Your task to perform on an android device: change the clock display to analog Image 0: 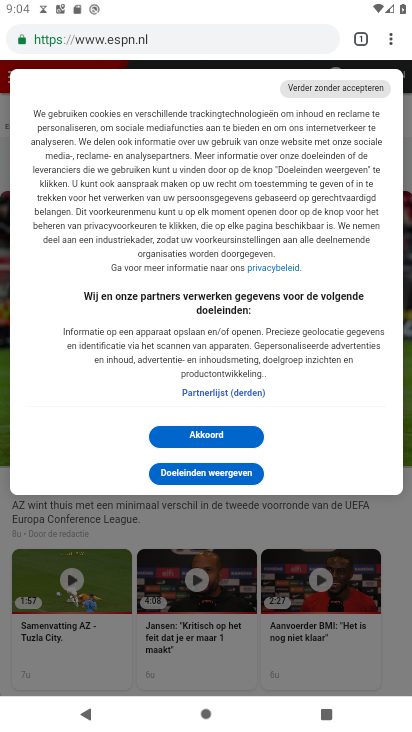
Step 0: press home button
Your task to perform on an android device: change the clock display to analog Image 1: 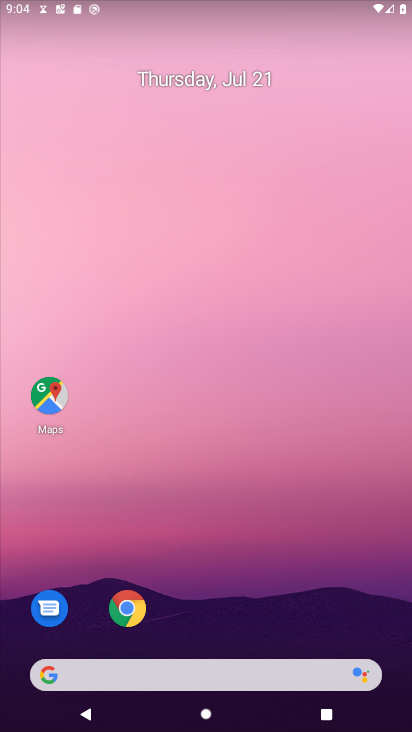
Step 1: drag from (186, 459) to (137, 61)
Your task to perform on an android device: change the clock display to analog Image 2: 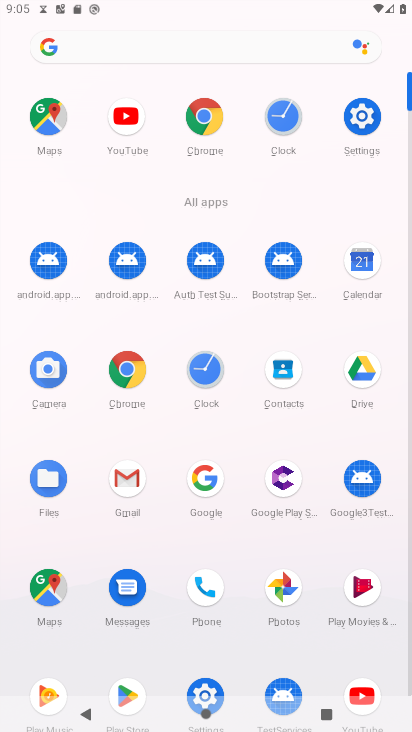
Step 2: click (204, 369)
Your task to perform on an android device: change the clock display to analog Image 3: 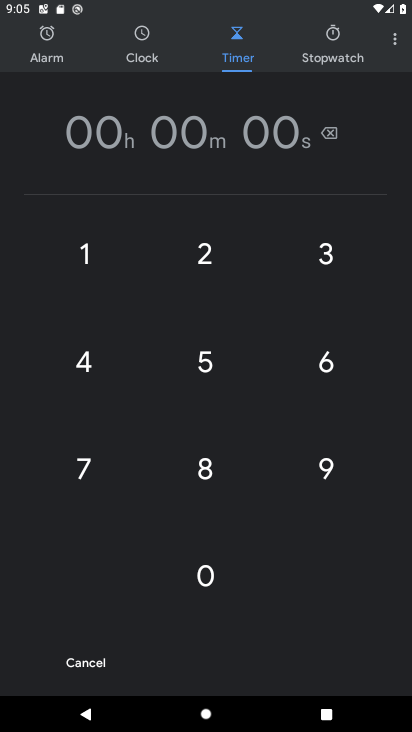
Step 3: click (396, 42)
Your task to perform on an android device: change the clock display to analog Image 4: 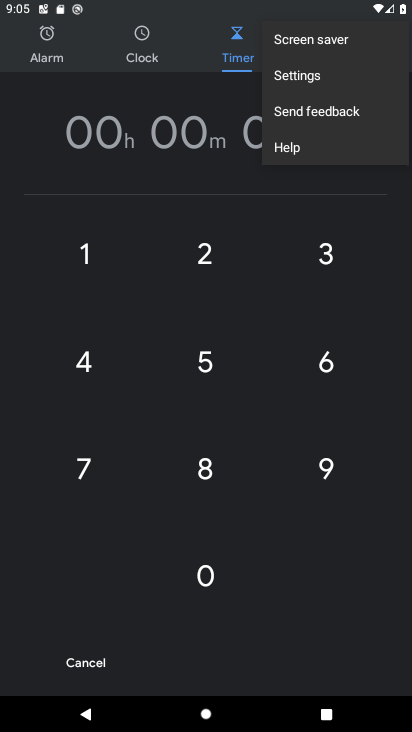
Step 4: click (314, 80)
Your task to perform on an android device: change the clock display to analog Image 5: 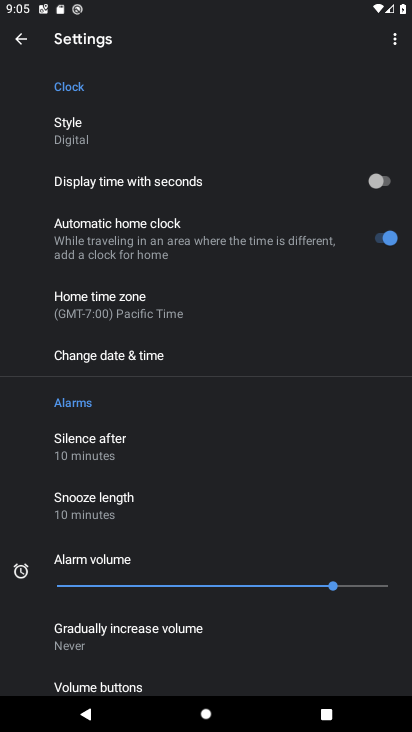
Step 5: click (74, 134)
Your task to perform on an android device: change the clock display to analog Image 6: 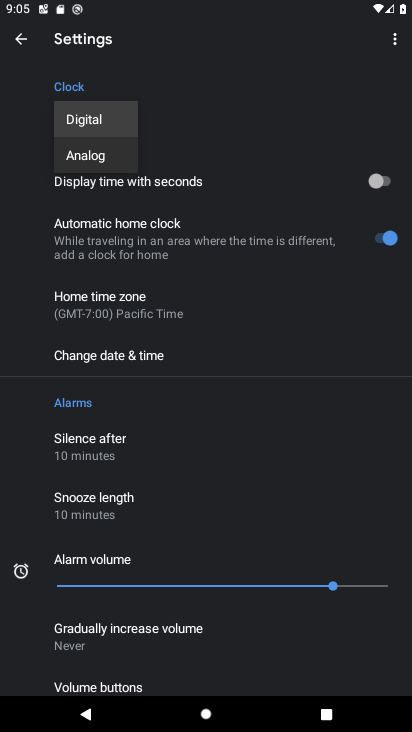
Step 6: click (87, 159)
Your task to perform on an android device: change the clock display to analog Image 7: 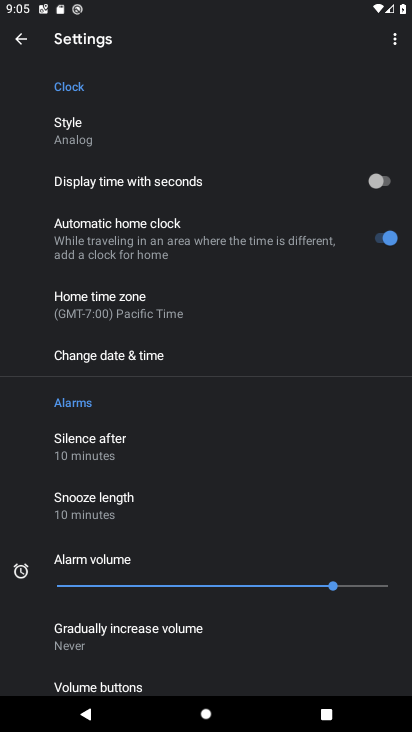
Step 7: task complete